Your task to perform on an android device: turn on airplane mode Image 0: 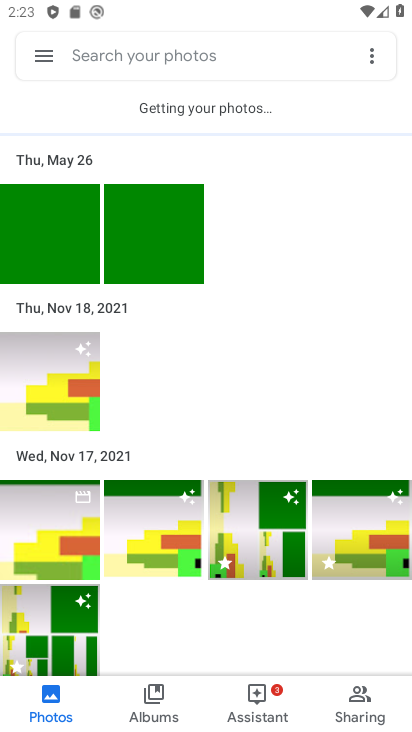
Step 0: press home button
Your task to perform on an android device: turn on airplane mode Image 1: 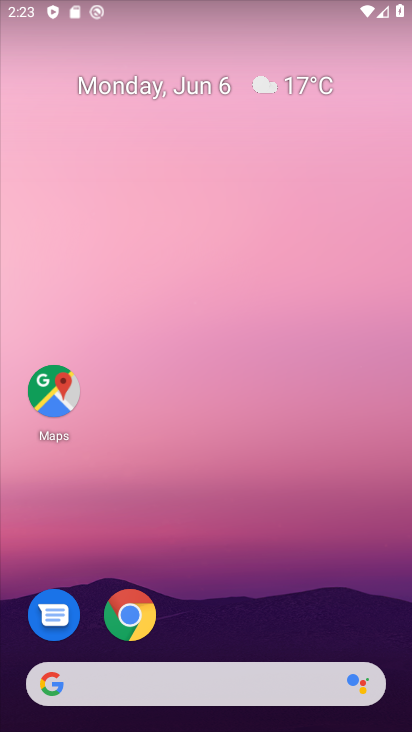
Step 1: drag from (279, 267) to (316, 0)
Your task to perform on an android device: turn on airplane mode Image 2: 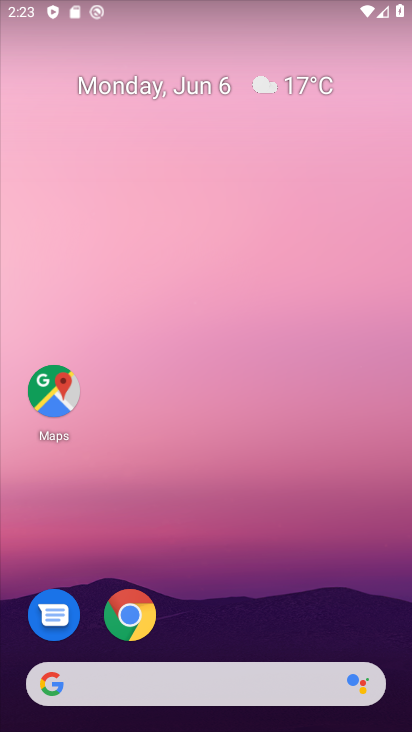
Step 2: drag from (233, 591) to (255, 10)
Your task to perform on an android device: turn on airplane mode Image 3: 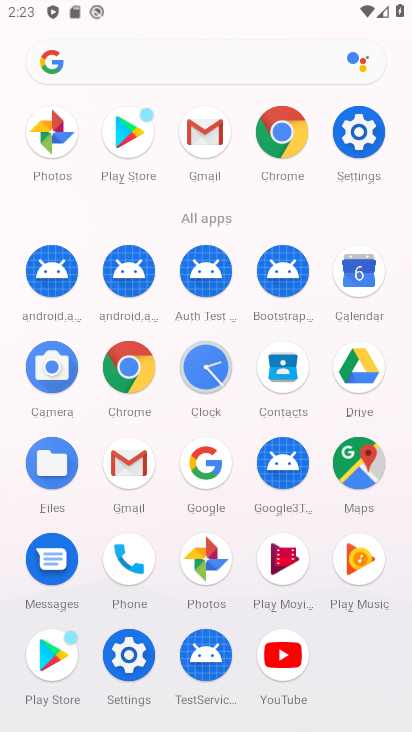
Step 3: click (362, 154)
Your task to perform on an android device: turn on airplane mode Image 4: 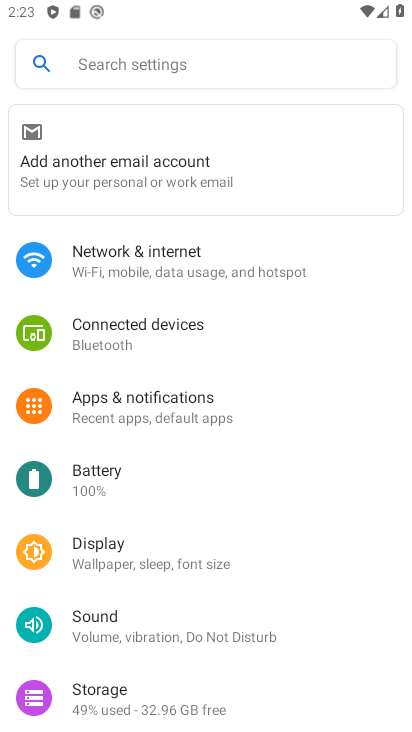
Step 4: click (163, 255)
Your task to perform on an android device: turn on airplane mode Image 5: 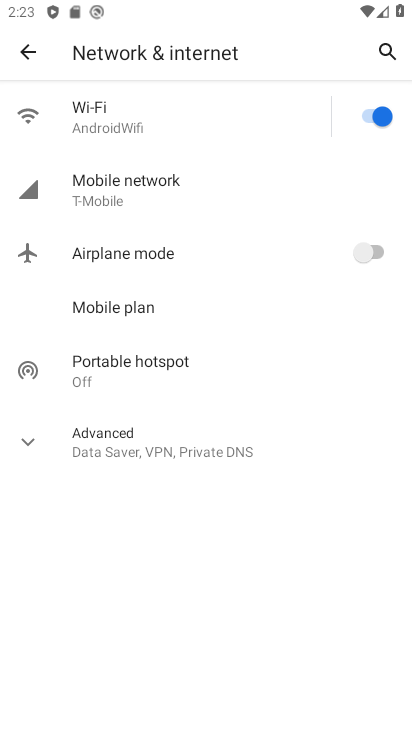
Step 5: click (355, 257)
Your task to perform on an android device: turn on airplane mode Image 6: 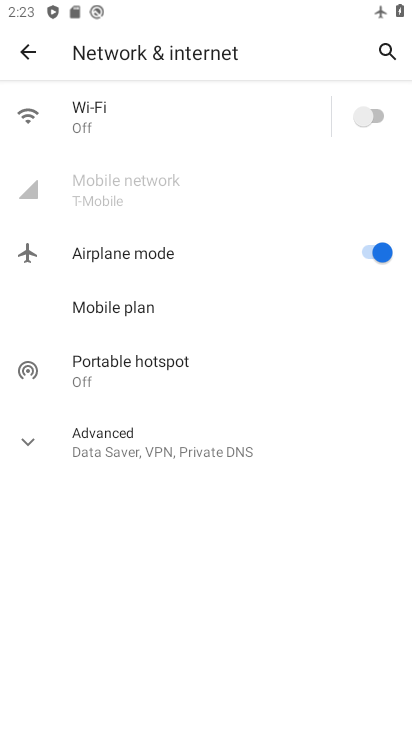
Step 6: task complete